Your task to perform on an android device: Open Android settings Image 0: 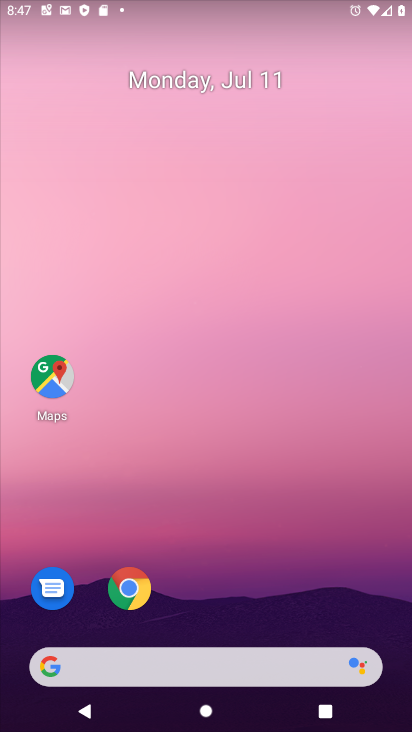
Step 0: press home button
Your task to perform on an android device: Open Android settings Image 1: 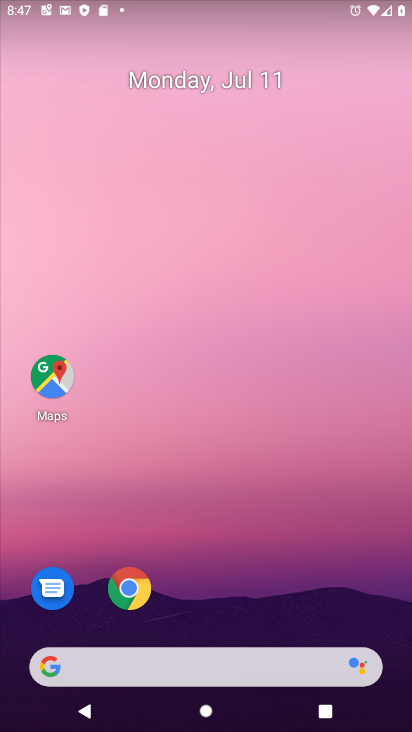
Step 1: drag from (138, 673) to (296, 170)
Your task to perform on an android device: Open Android settings Image 2: 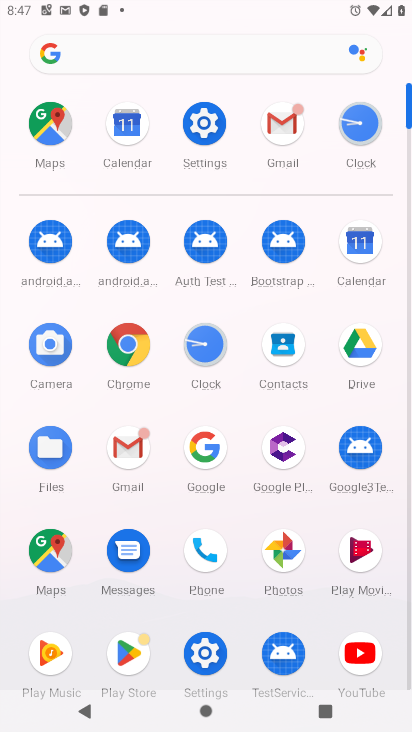
Step 2: click (202, 127)
Your task to perform on an android device: Open Android settings Image 3: 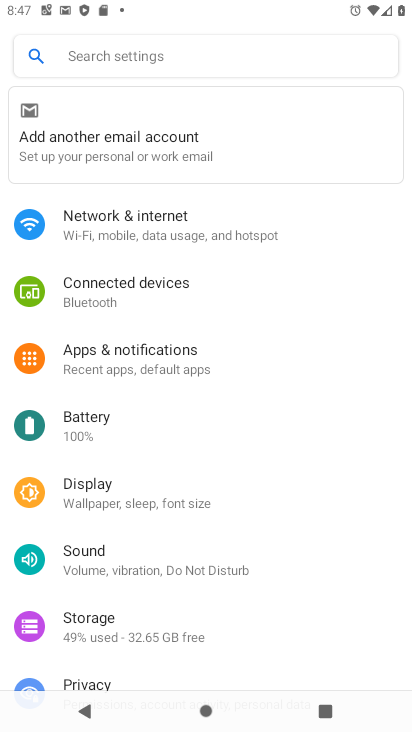
Step 3: task complete